Your task to perform on an android device: turn off smart reply in the gmail app Image 0: 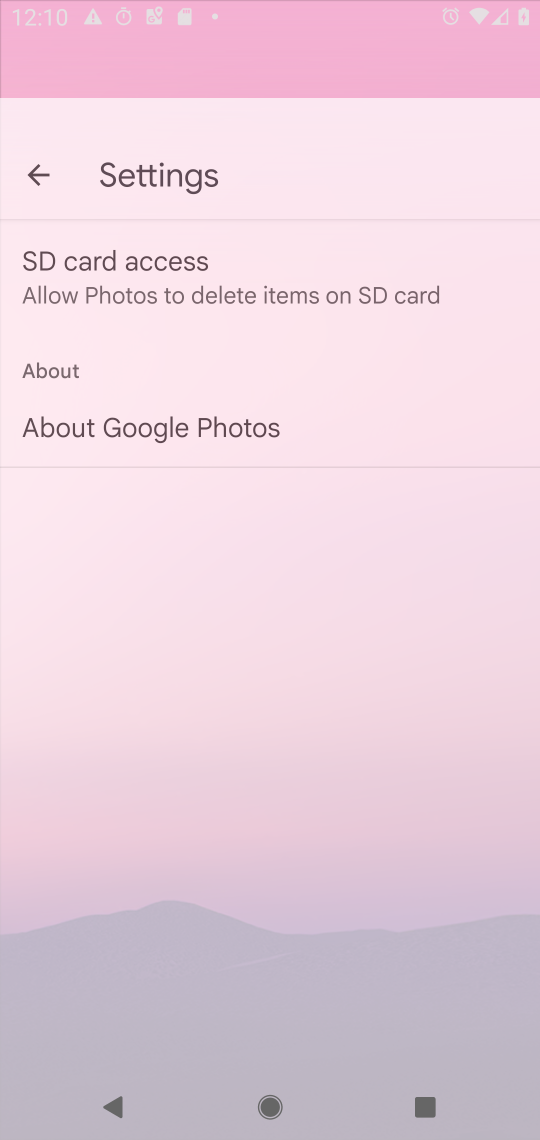
Step 0: press home button
Your task to perform on an android device: turn off smart reply in the gmail app Image 1: 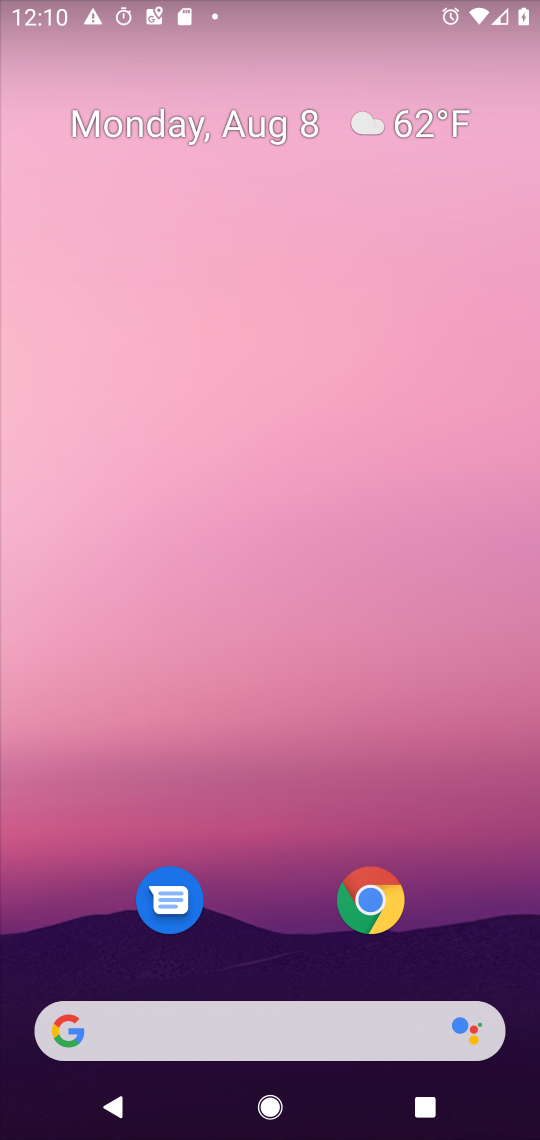
Step 1: drag from (280, 961) to (289, 68)
Your task to perform on an android device: turn off smart reply in the gmail app Image 2: 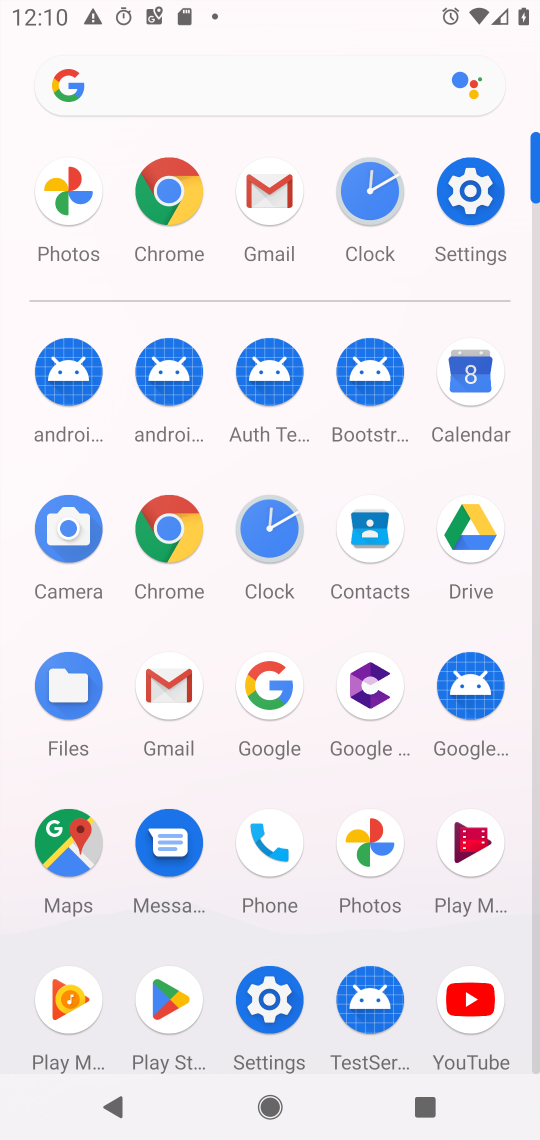
Step 2: click (165, 672)
Your task to perform on an android device: turn off smart reply in the gmail app Image 3: 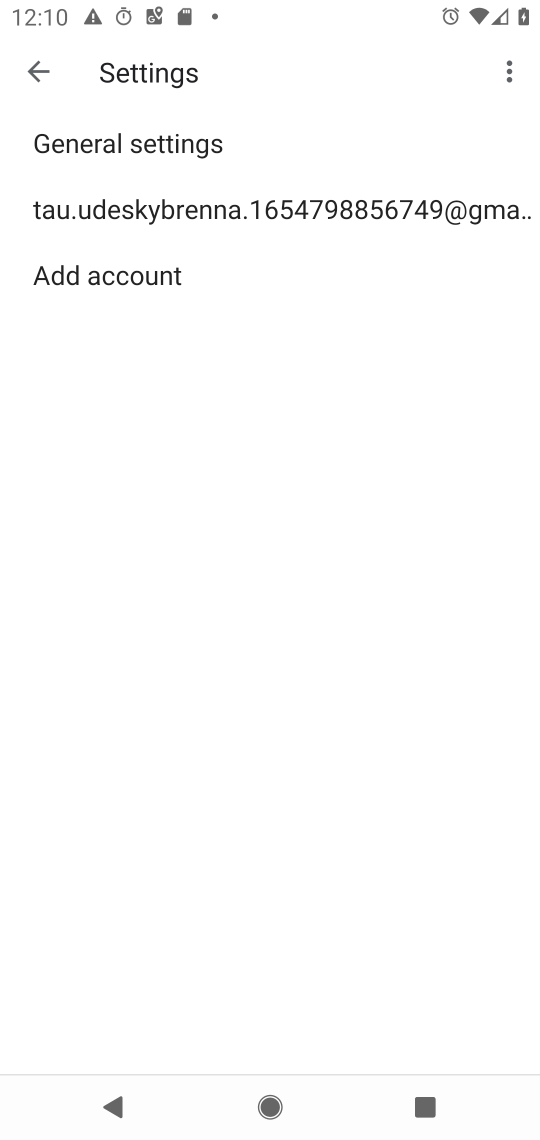
Step 3: click (152, 198)
Your task to perform on an android device: turn off smart reply in the gmail app Image 4: 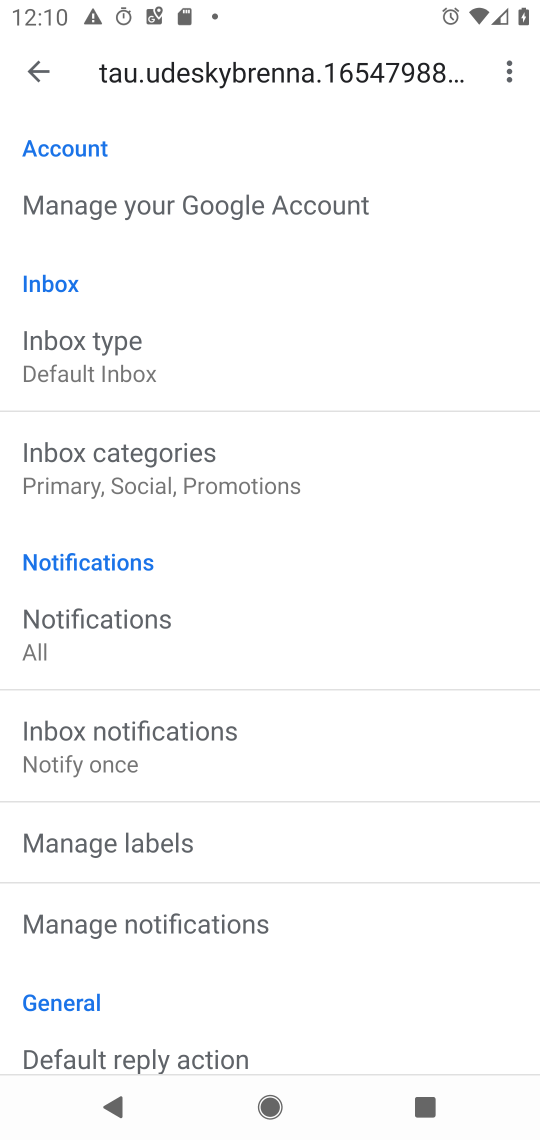
Step 4: drag from (202, 968) to (271, 105)
Your task to perform on an android device: turn off smart reply in the gmail app Image 5: 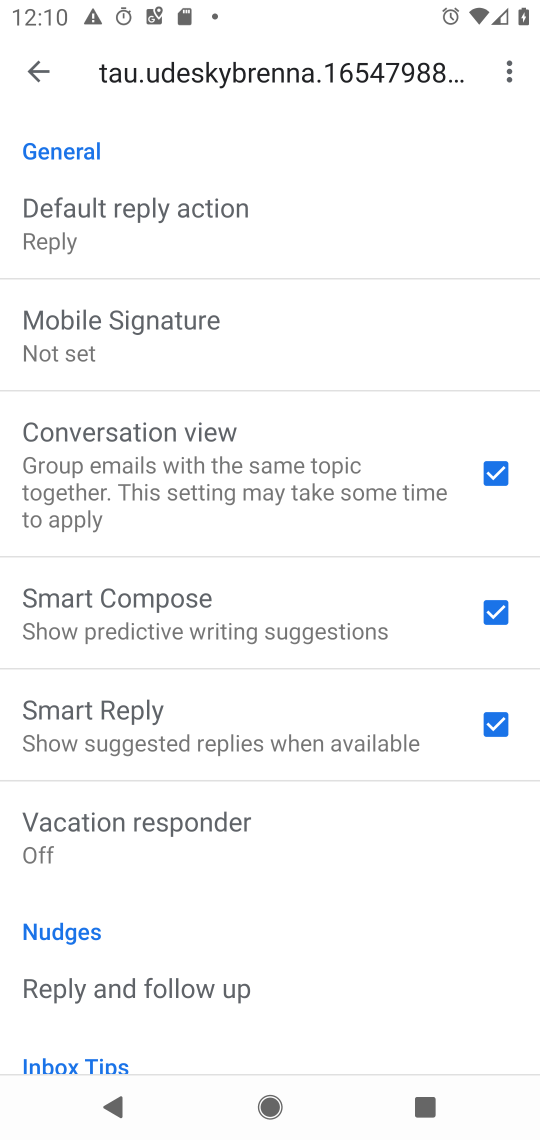
Step 5: click (494, 715)
Your task to perform on an android device: turn off smart reply in the gmail app Image 6: 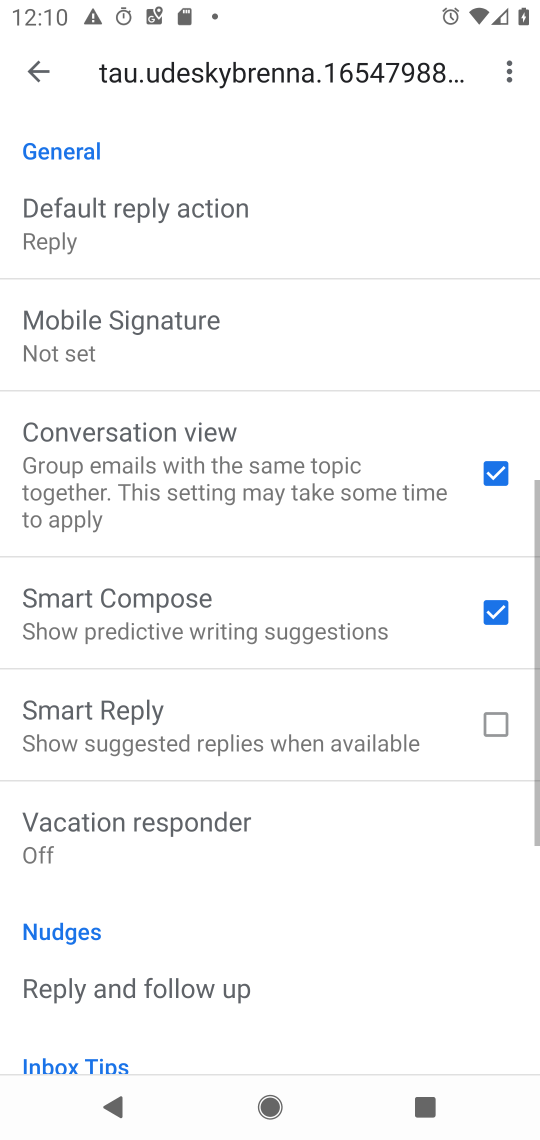
Step 6: task complete